Your task to perform on an android device: remove spam from my inbox in the gmail app Image 0: 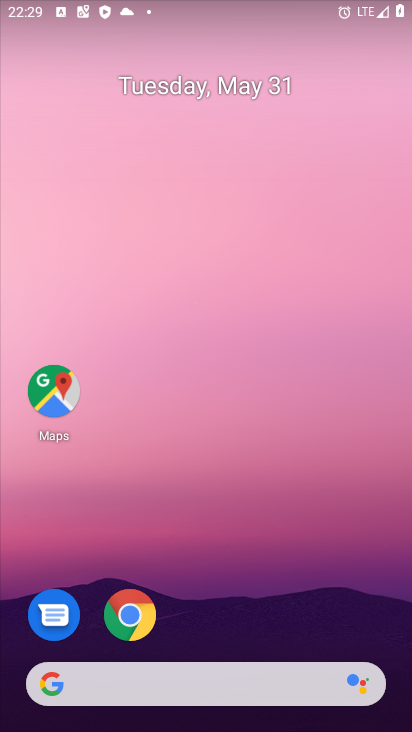
Step 0: drag from (369, 612) to (335, 184)
Your task to perform on an android device: remove spam from my inbox in the gmail app Image 1: 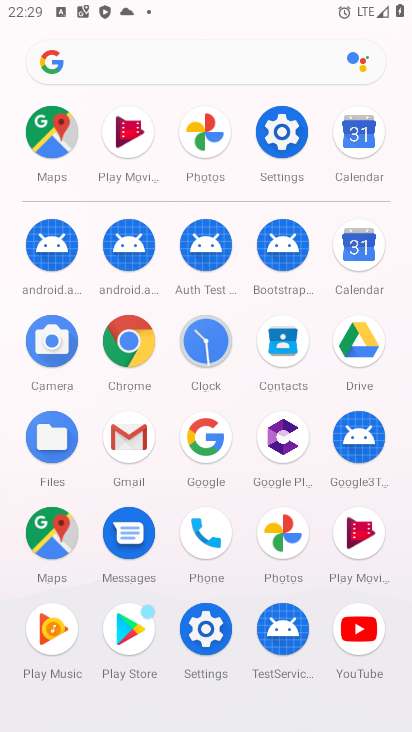
Step 1: click (130, 439)
Your task to perform on an android device: remove spam from my inbox in the gmail app Image 2: 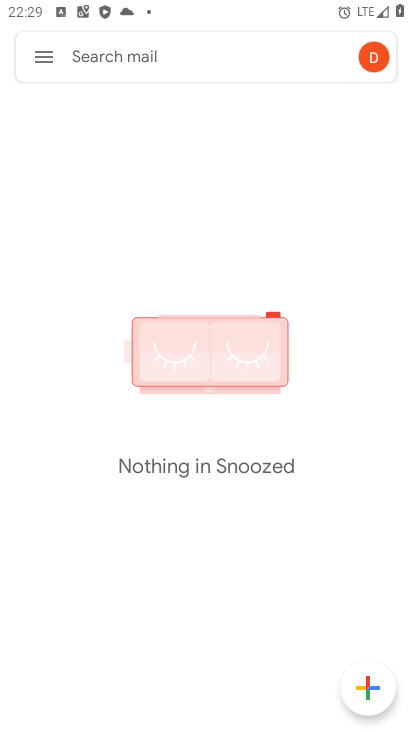
Step 2: click (43, 59)
Your task to perform on an android device: remove spam from my inbox in the gmail app Image 3: 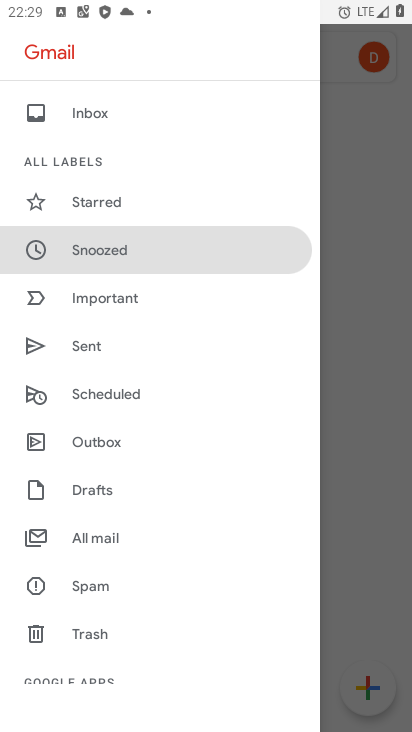
Step 3: click (91, 583)
Your task to perform on an android device: remove spam from my inbox in the gmail app Image 4: 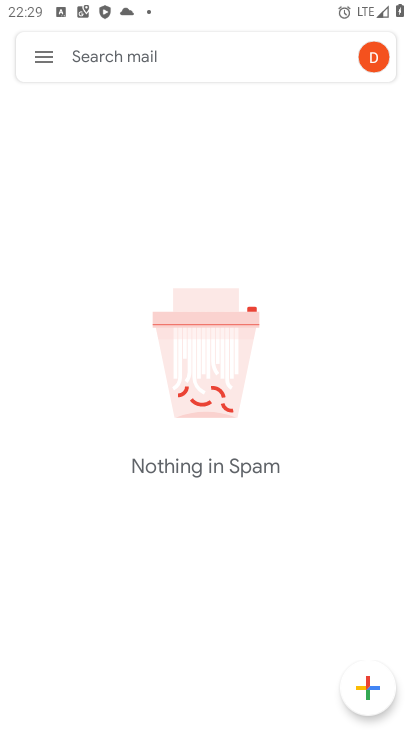
Step 4: task complete